Your task to perform on an android device: Is it going to rain tomorrow? Image 0: 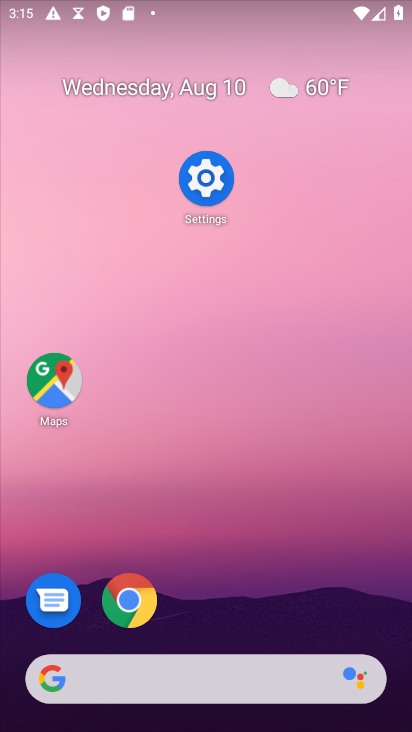
Step 0: press home button
Your task to perform on an android device: Is it going to rain tomorrow? Image 1: 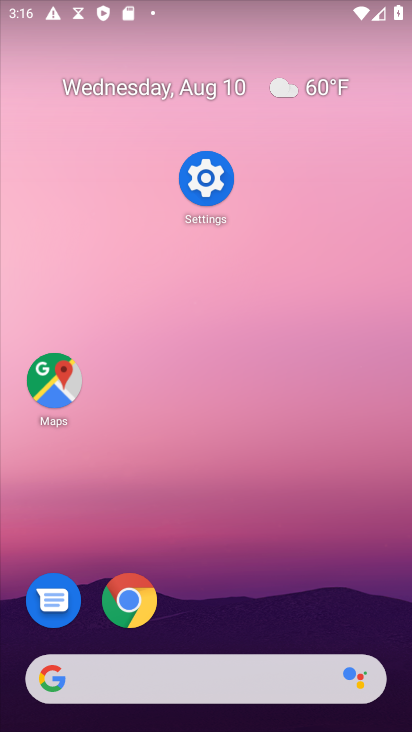
Step 1: click (57, 681)
Your task to perform on an android device: Is it going to rain tomorrow? Image 2: 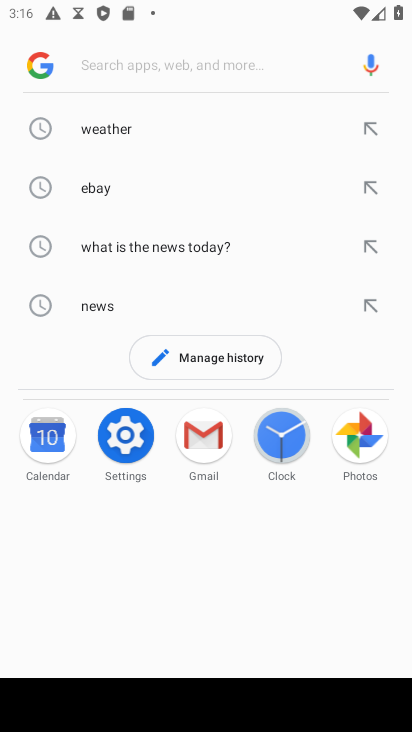
Step 2: type " rain tomorrow?"
Your task to perform on an android device: Is it going to rain tomorrow? Image 3: 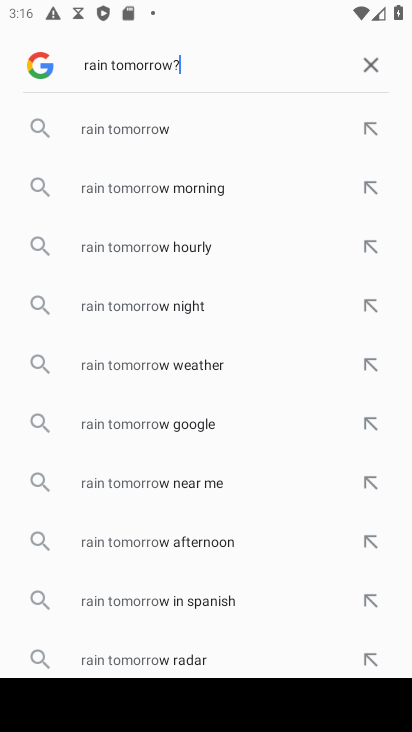
Step 3: press enter
Your task to perform on an android device: Is it going to rain tomorrow? Image 4: 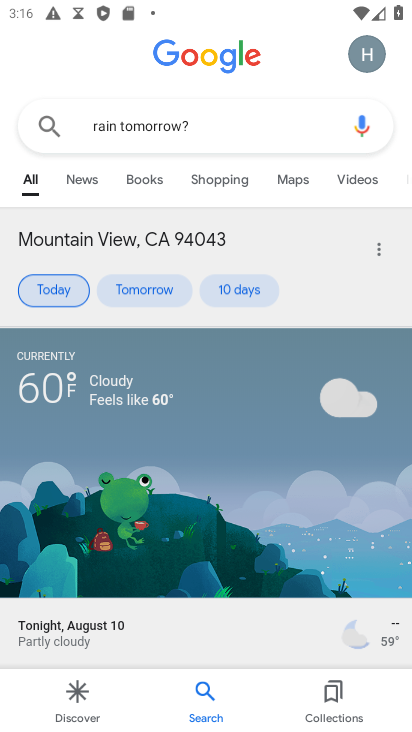
Step 4: task complete